Your task to perform on an android device: What's the weather today? Image 0: 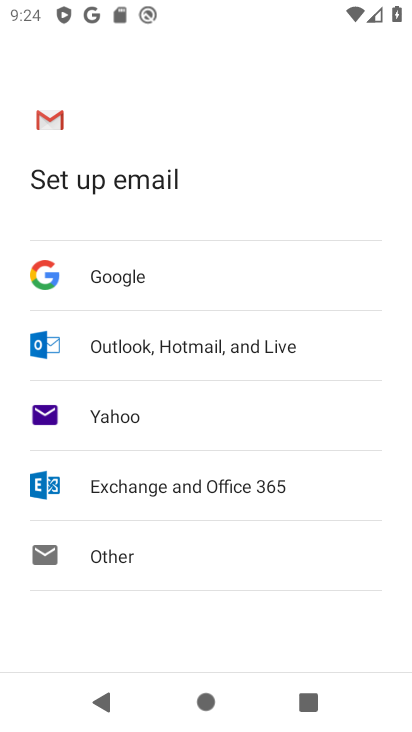
Step 0: press home button
Your task to perform on an android device: What's the weather today? Image 1: 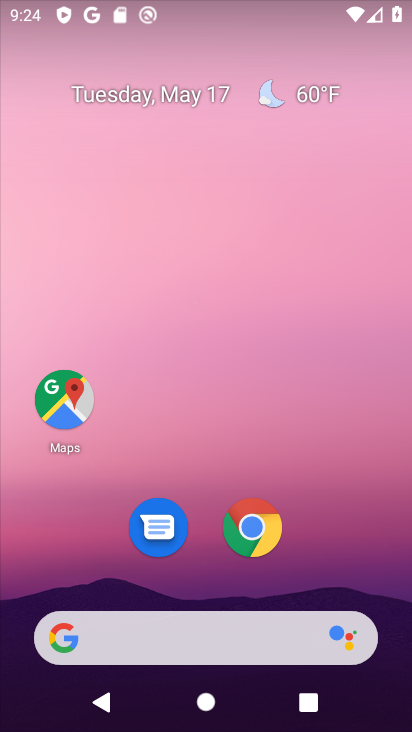
Step 1: click (194, 627)
Your task to perform on an android device: What's the weather today? Image 2: 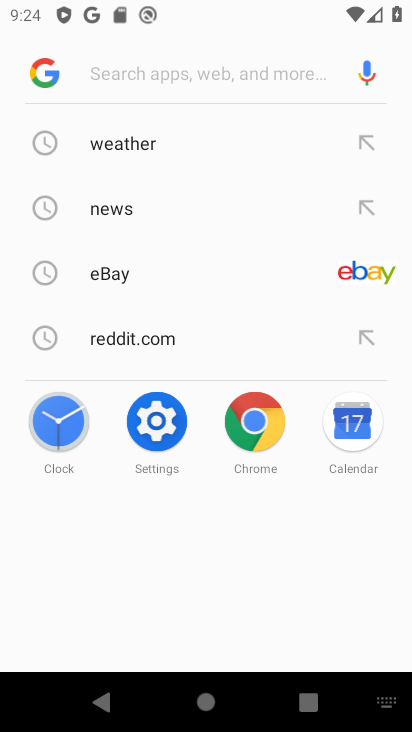
Step 2: click (161, 148)
Your task to perform on an android device: What's the weather today? Image 3: 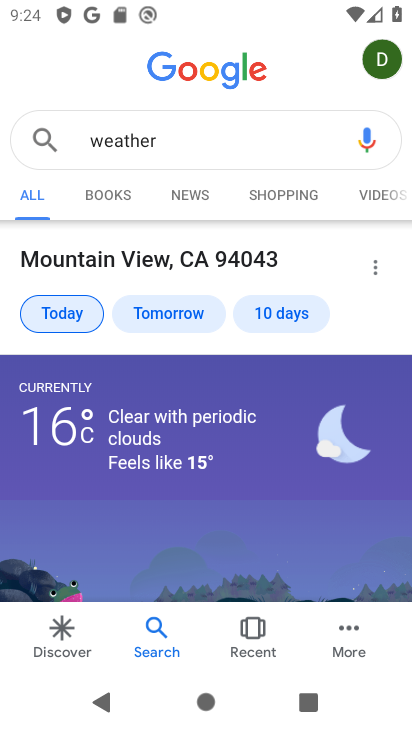
Step 3: task complete